Your task to perform on an android device: Show me the best rated power washer on Home Depot. Image 0: 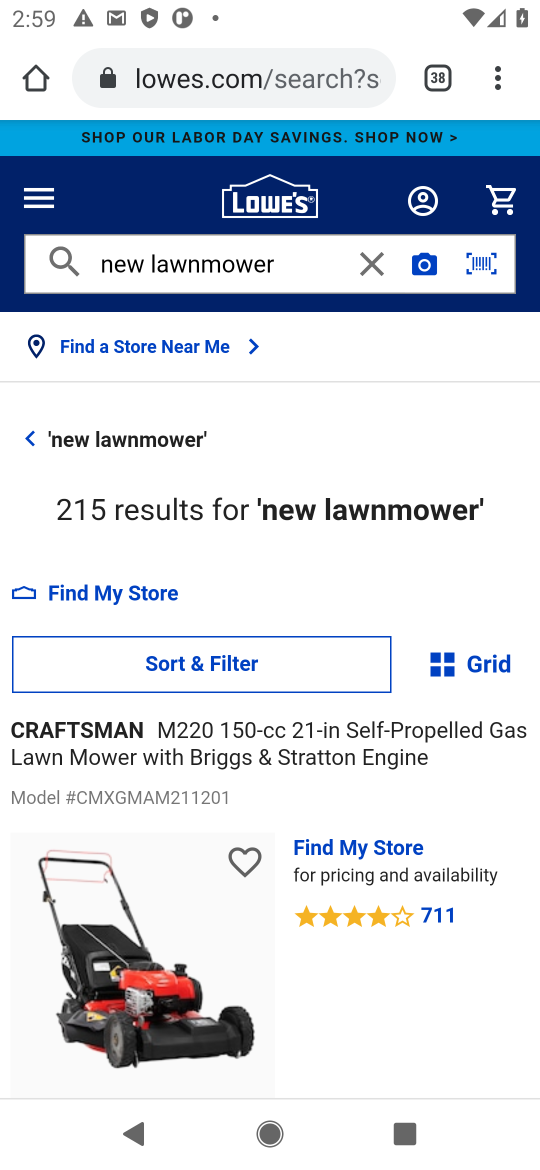
Step 0: press home button
Your task to perform on an android device: Show me the best rated power washer on Home Depot. Image 1: 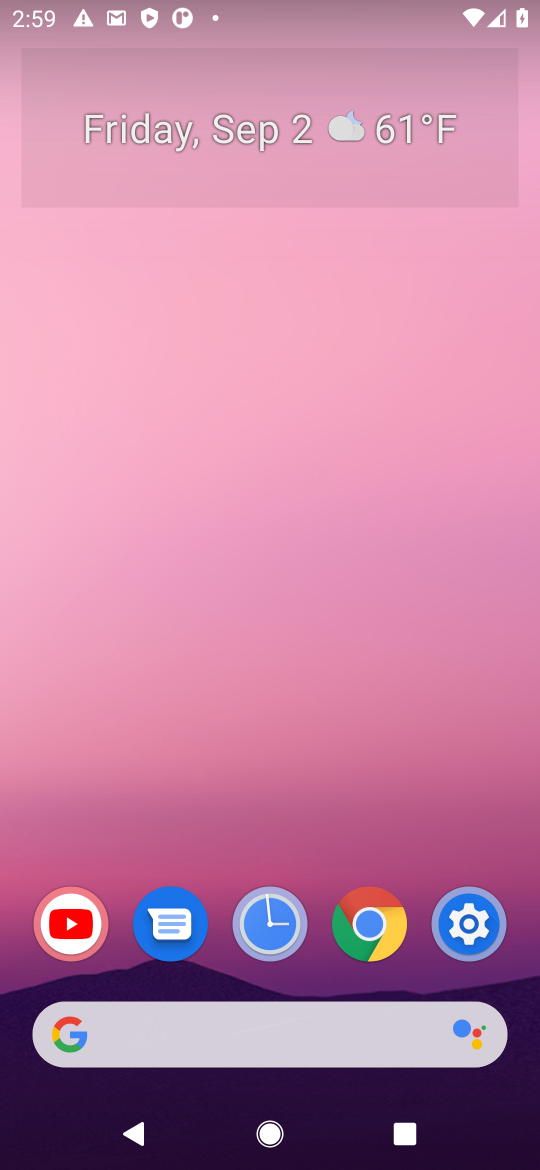
Step 1: click (370, 1037)
Your task to perform on an android device: Show me the best rated power washer on Home Depot. Image 2: 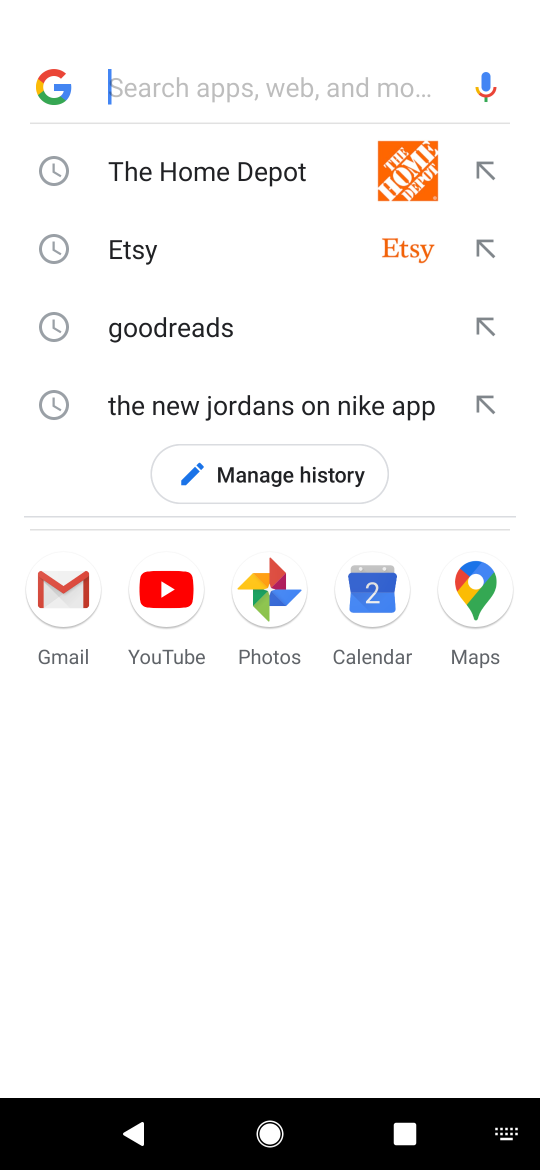
Step 2: click (226, 174)
Your task to perform on an android device: Show me the best rated power washer on Home Depot. Image 3: 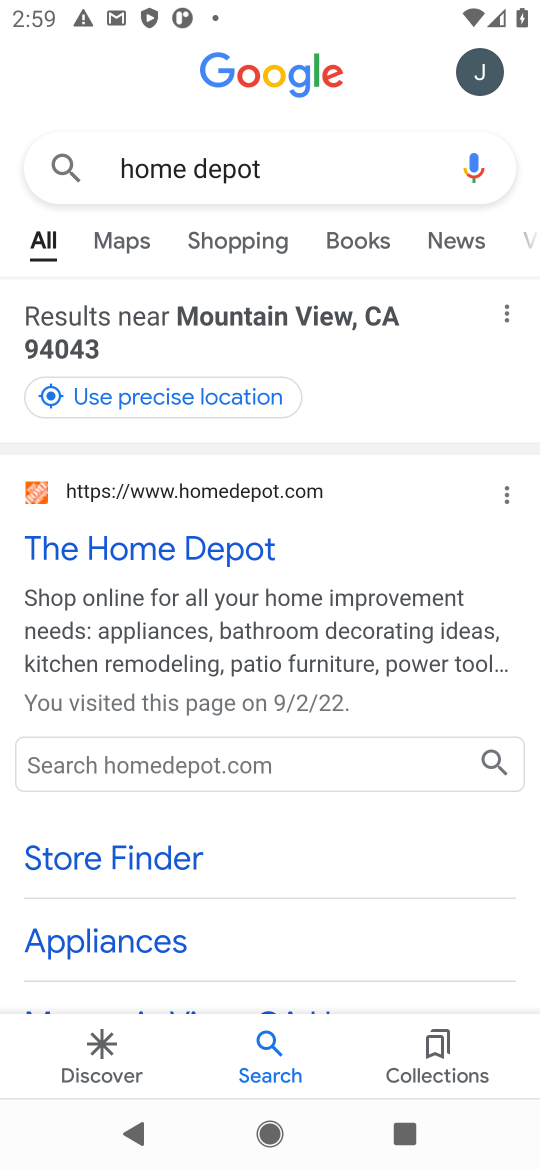
Step 3: click (222, 522)
Your task to perform on an android device: Show me the best rated power washer on Home Depot. Image 4: 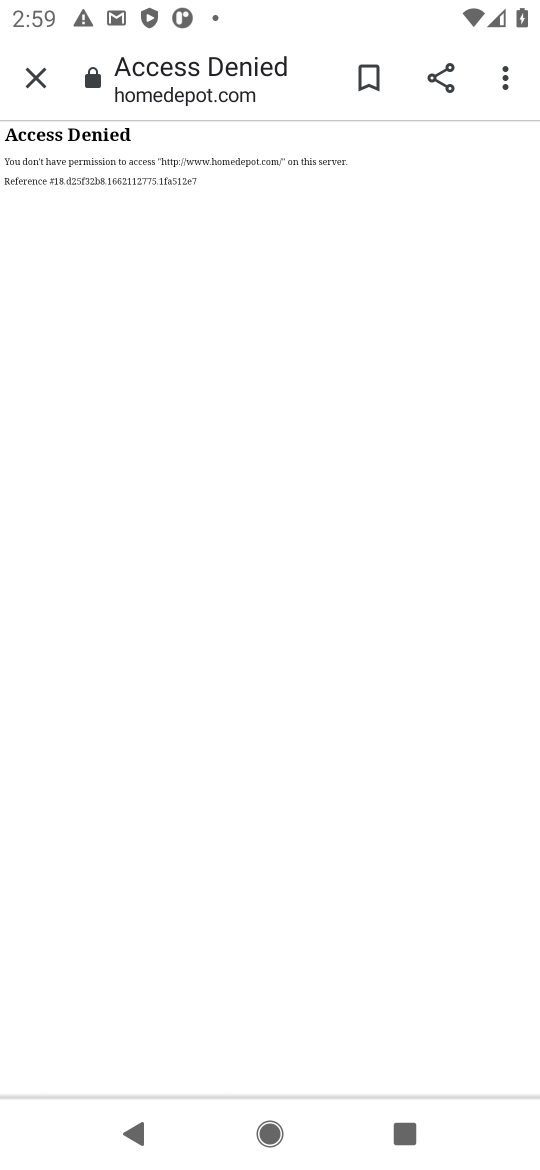
Step 4: task complete